Your task to perform on an android device: open the mobile data screen to see how much data has been used Image 0: 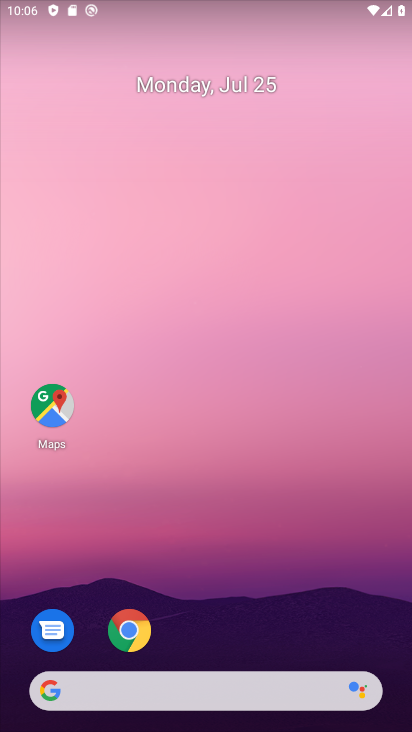
Step 0: drag from (315, 559) to (247, 65)
Your task to perform on an android device: open the mobile data screen to see how much data has been used Image 1: 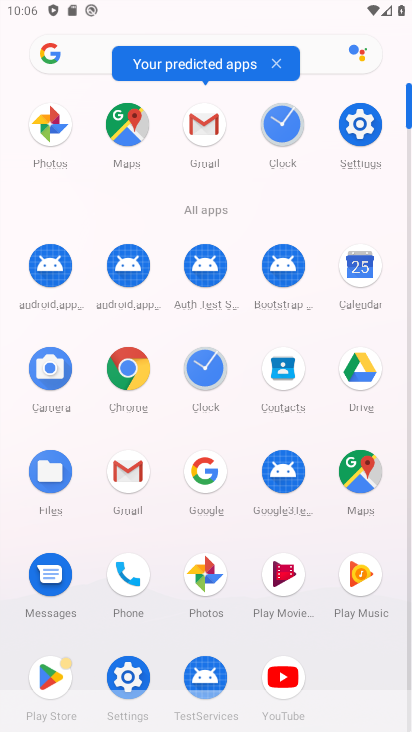
Step 1: click (363, 123)
Your task to perform on an android device: open the mobile data screen to see how much data has been used Image 2: 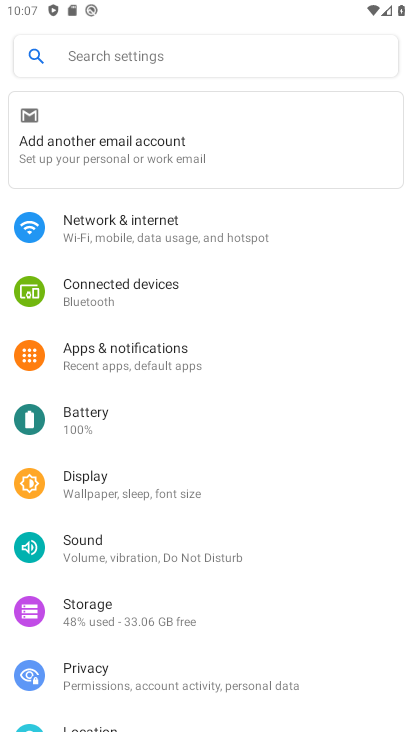
Step 2: click (174, 237)
Your task to perform on an android device: open the mobile data screen to see how much data has been used Image 3: 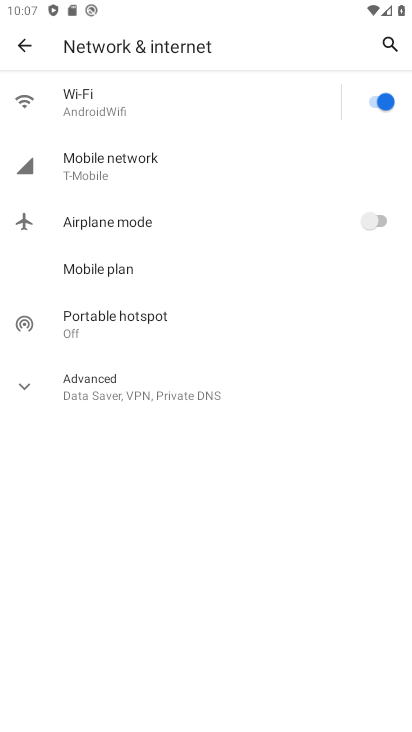
Step 3: click (191, 169)
Your task to perform on an android device: open the mobile data screen to see how much data has been used Image 4: 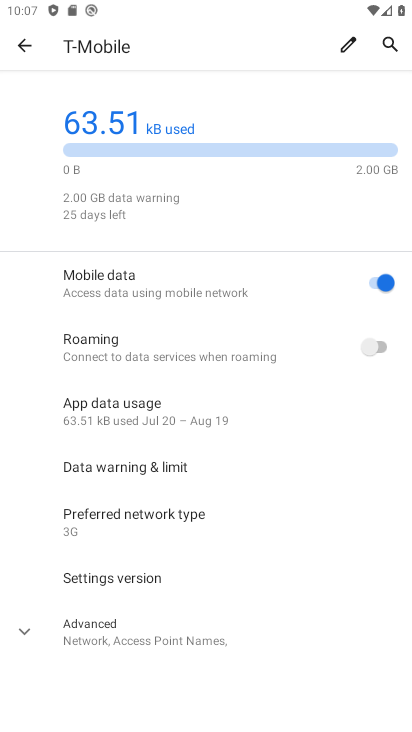
Step 4: task complete